Your task to perform on an android device: Open location settings Image 0: 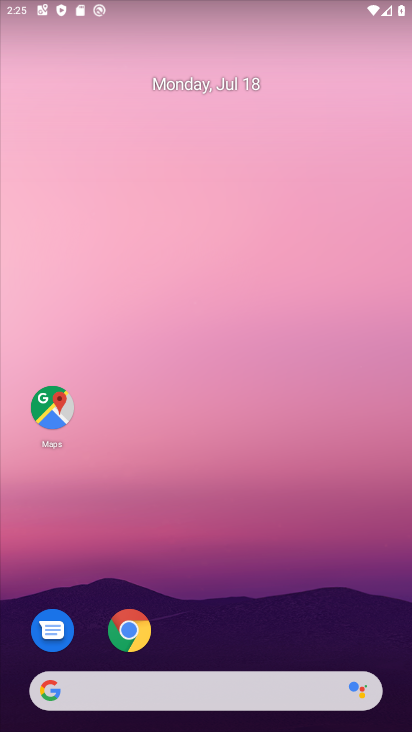
Step 0: drag from (398, 661) to (236, 24)
Your task to perform on an android device: Open location settings Image 1: 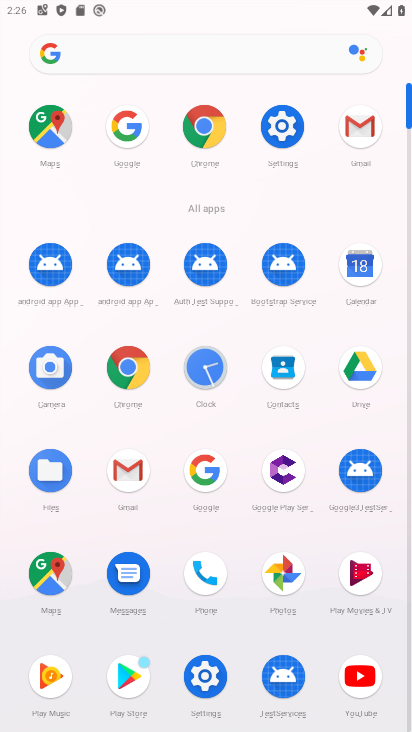
Step 1: click (216, 662)
Your task to perform on an android device: Open location settings Image 2: 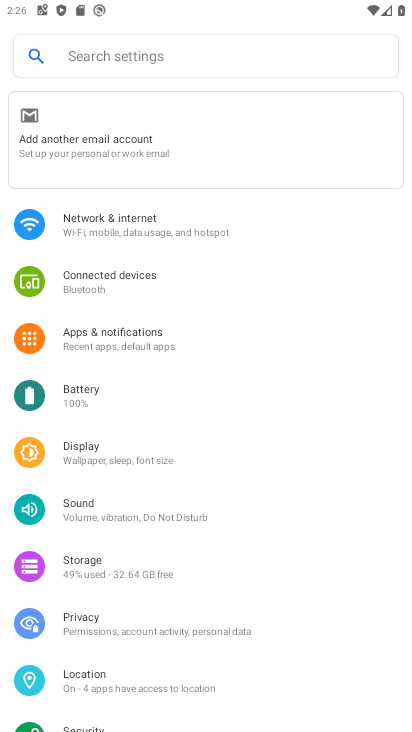
Step 2: click (95, 671)
Your task to perform on an android device: Open location settings Image 3: 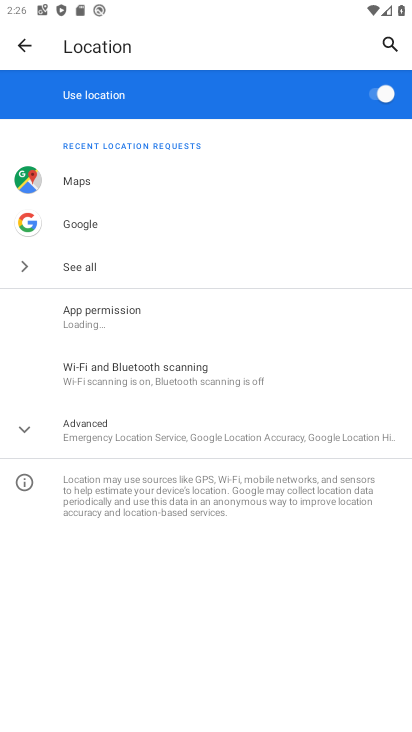
Step 3: task complete